Your task to perform on an android device: What's on my calendar today? Image 0: 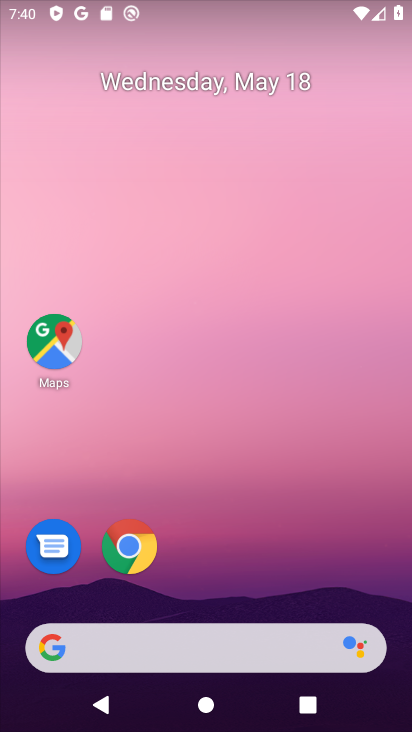
Step 0: drag from (150, 610) to (195, 264)
Your task to perform on an android device: What's on my calendar today? Image 1: 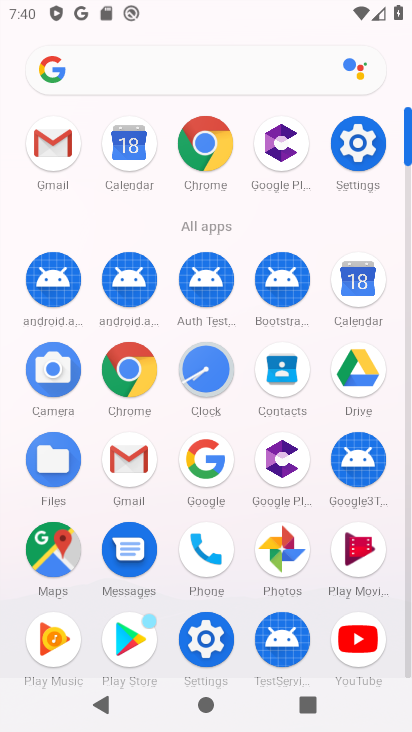
Step 1: click (355, 286)
Your task to perform on an android device: What's on my calendar today? Image 2: 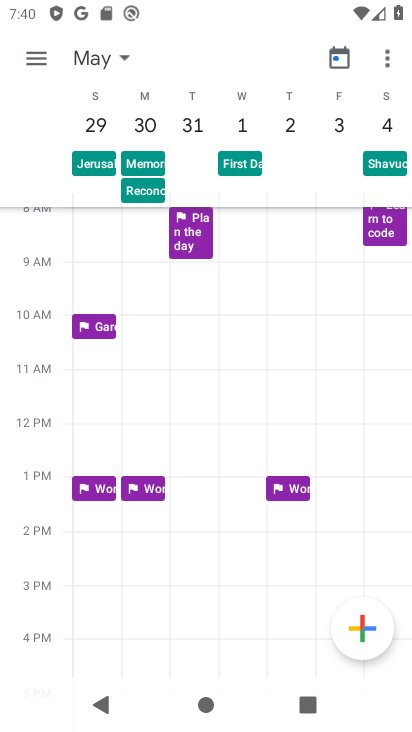
Step 2: click (117, 53)
Your task to perform on an android device: What's on my calendar today? Image 3: 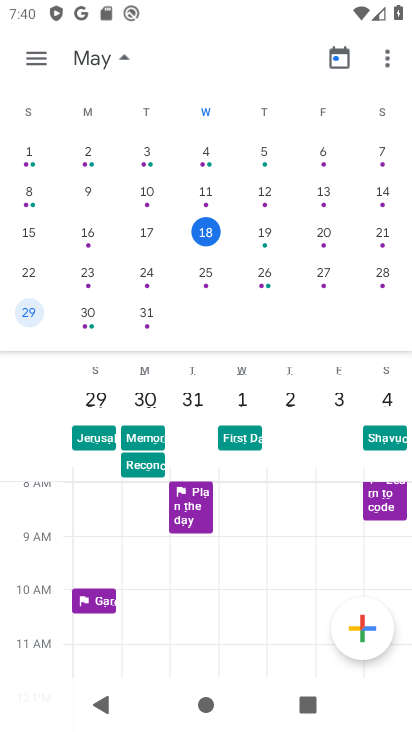
Step 3: click (263, 229)
Your task to perform on an android device: What's on my calendar today? Image 4: 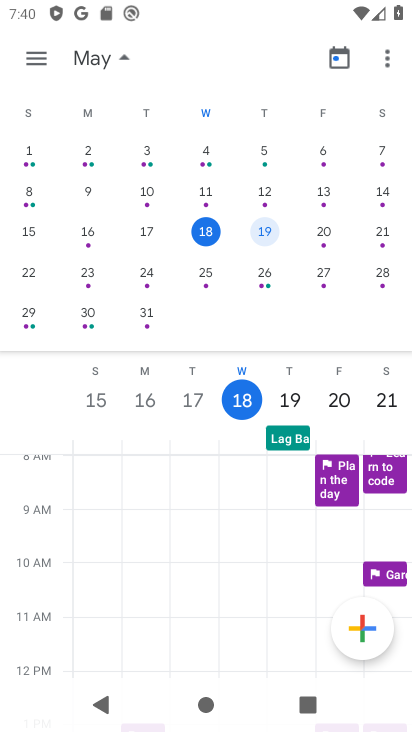
Step 4: task complete